Your task to perform on an android device: turn on location history Image 0: 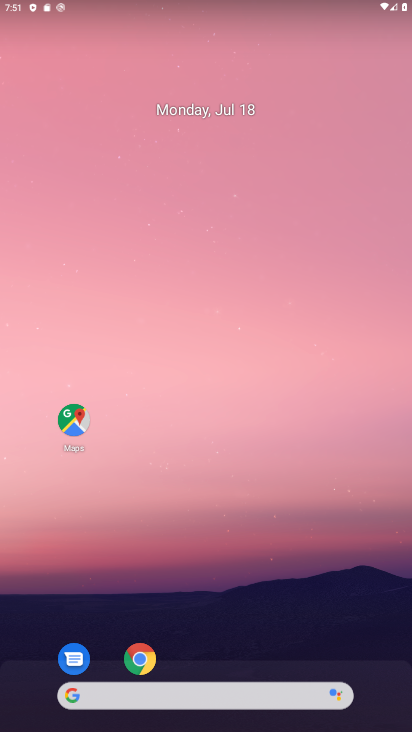
Step 0: drag from (315, 659) to (230, 3)
Your task to perform on an android device: turn on location history Image 1: 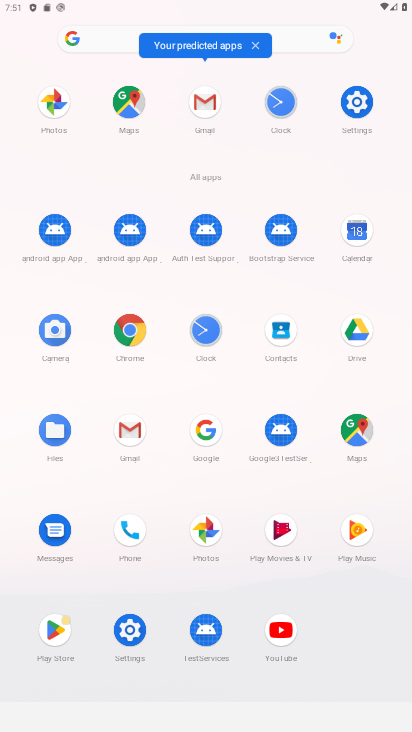
Step 1: click (364, 102)
Your task to perform on an android device: turn on location history Image 2: 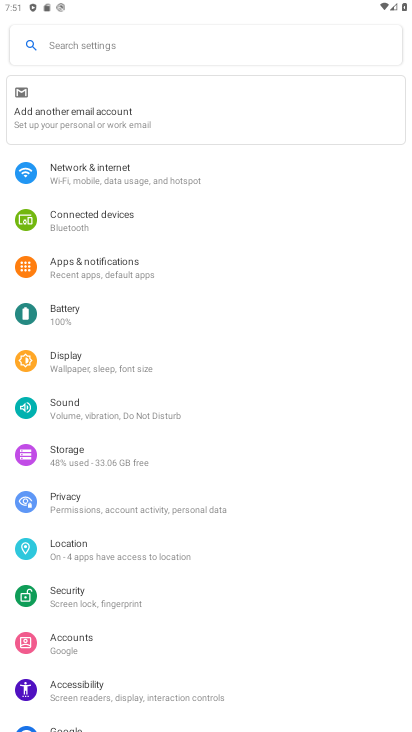
Step 2: click (91, 546)
Your task to perform on an android device: turn on location history Image 3: 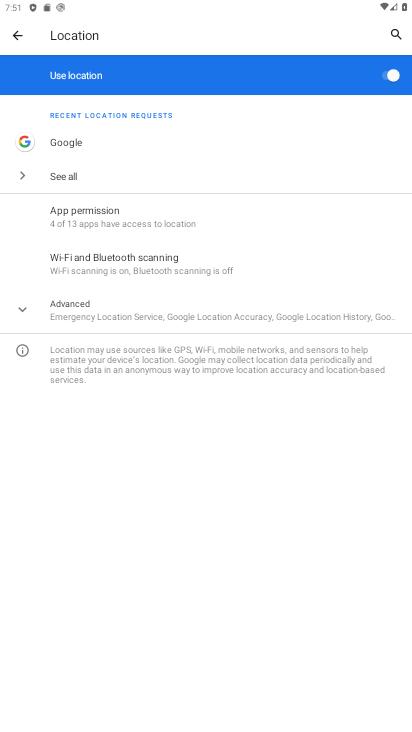
Step 3: click (149, 303)
Your task to perform on an android device: turn on location history Image 4: 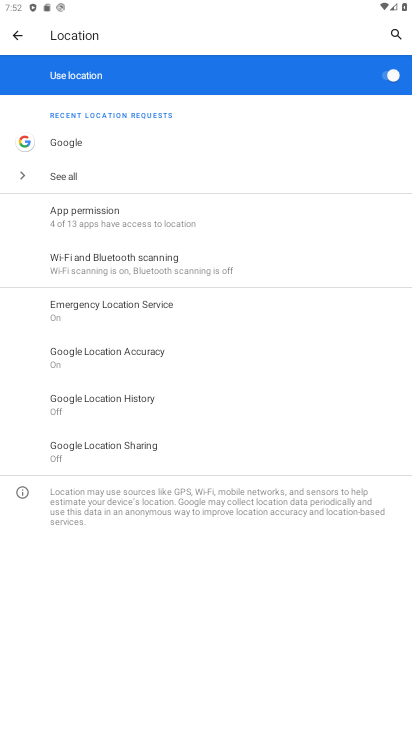
Step 4: click (109, 404)
Your task to perform on an android device: turn on location history Image 5: 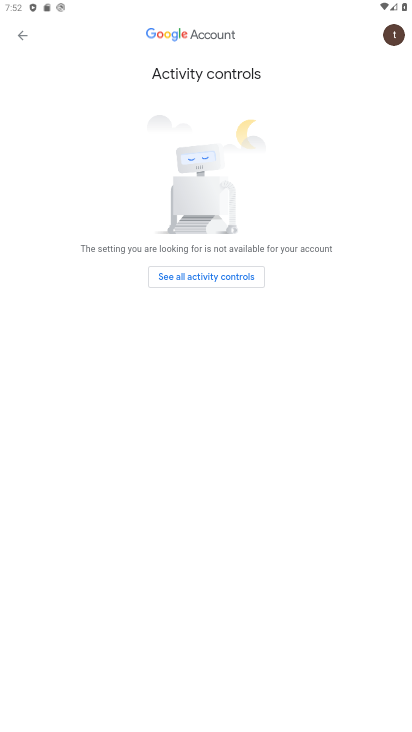
Step 5: click (226, 279)
Your task to perform on an android device: turn on location history Image 6: 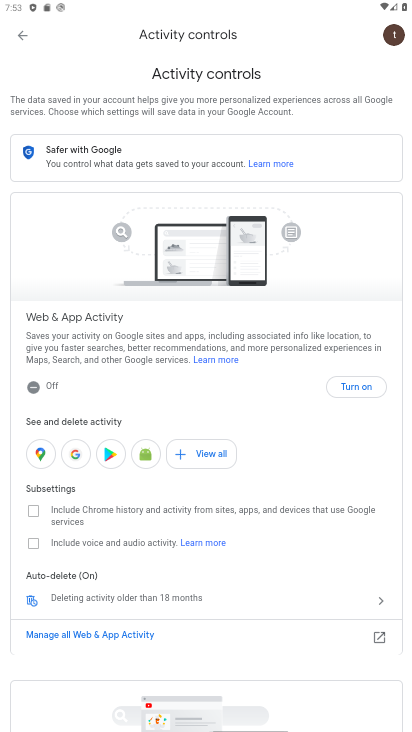
Step 6: click (353, 393)
Your task to perform on an android device: turn on location history Image 7: 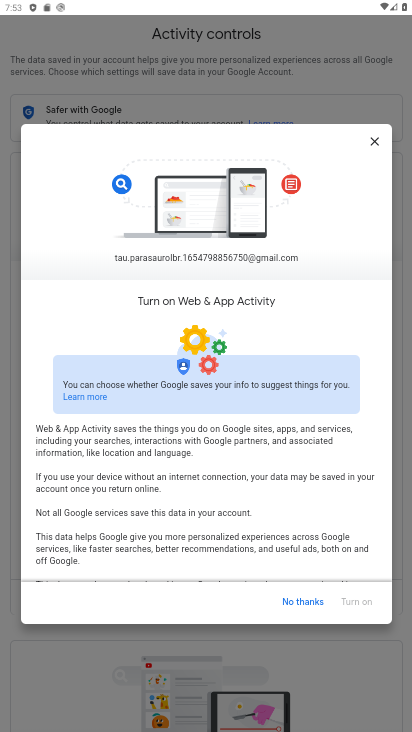
Step 7: drag from (308, 485) to (346, 59)
Your task to perform on an android device: turn on location history Image 8: 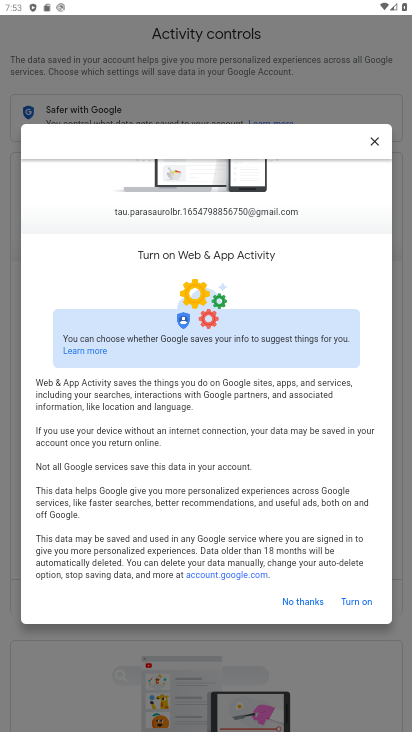
Step 8: click (362, 599)
Your task to perform on an android device: turn on location history Image 9: 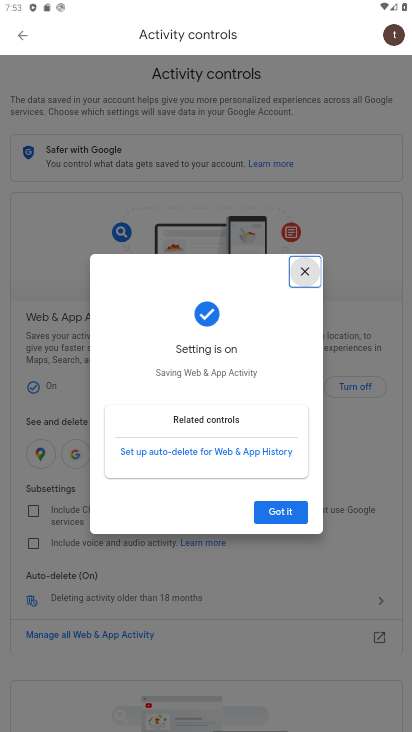
Step 9: task complete